Your task to perform on an android device: Go to location settings Image 0: 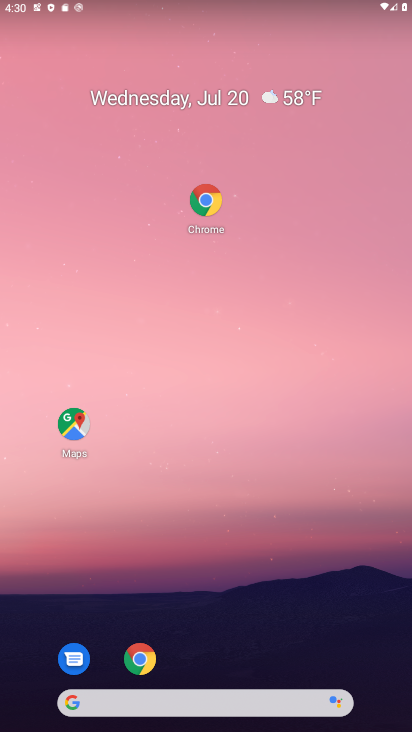
Step 0: drag from (199, 665) to (112, 210)
Your task to perform on an android device: Go to location settings Image 1: 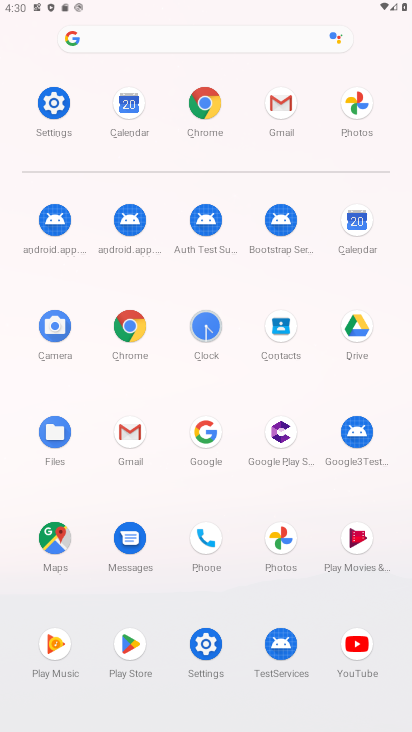
Step 1: click (60, 103)
Your task to perform on an android device: Go to location settings Image 2: 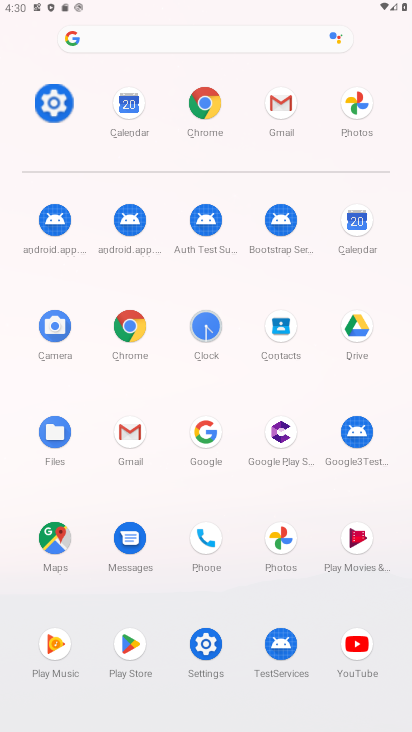
Step 2: click (60, 103)
Your task to perform on an android device: Go to location settings Image 3: 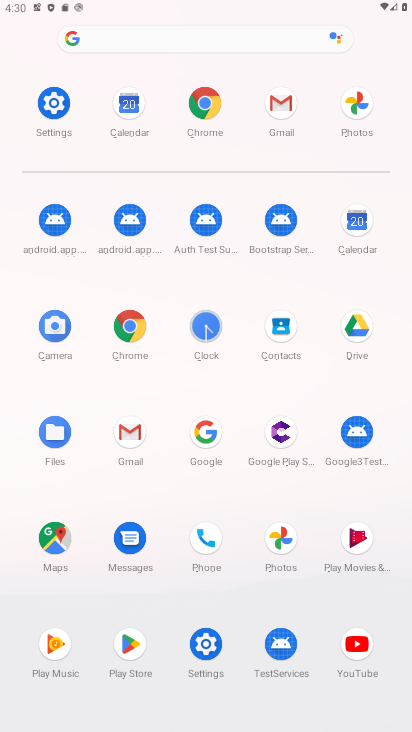
Step 3: click (55, 95)
Your task to perform on an android device: Go to location settings Image 4: 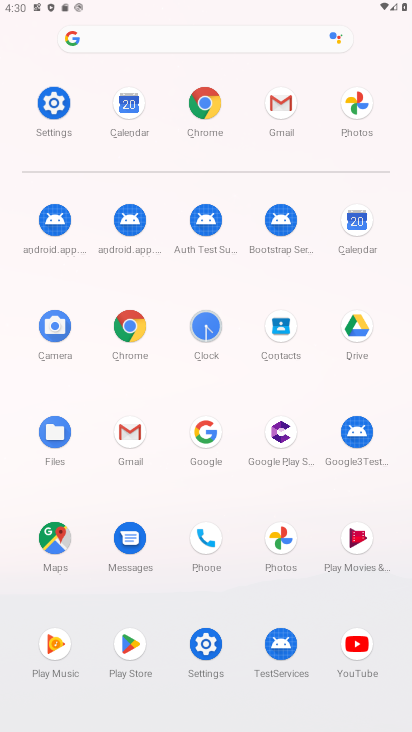
Step 4: click (57, 97)
Your task to perform on an android device: Go to location settings Image 5: 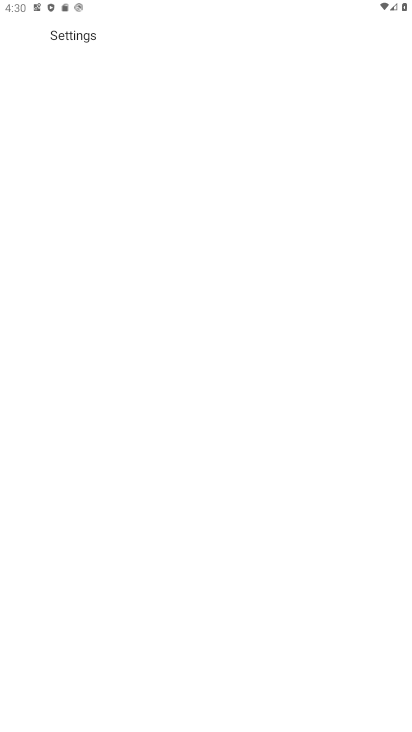
Step 5: click (57, 97)
Your task to perform on an android device: Go to location settings Image 6: 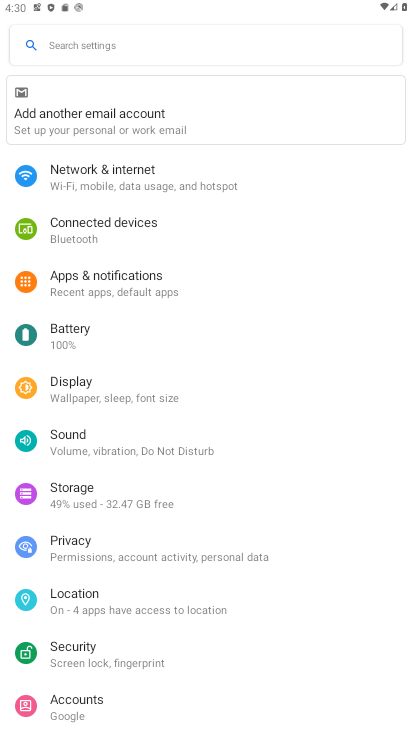
Step 6: click (85, 593)
Your task to perform on an android device: Go to location settings Image 7: 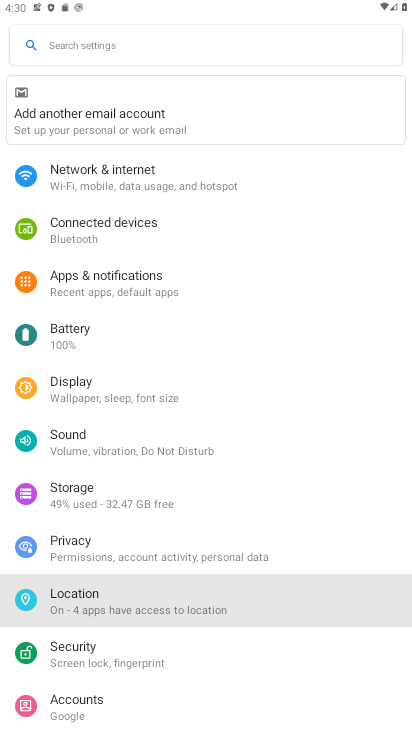
Step 7: click (90, 597)
Your task to perform on an android device: Go to location settings Image 8: 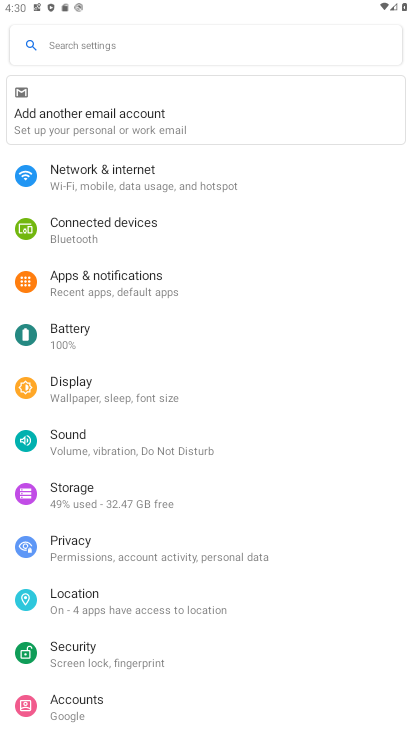
Step 8: click (91, 597)
Your task to perform on an android device: Go to location settings Image 9: 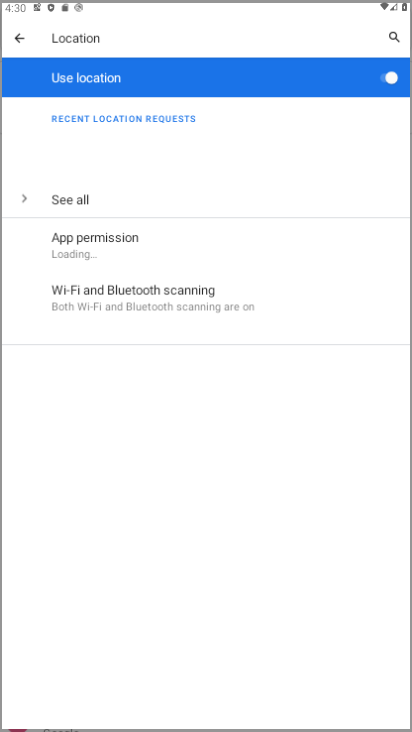
Step 9: click (94, 597)
Your task to perform on an android device: Go to location settings Image 10: 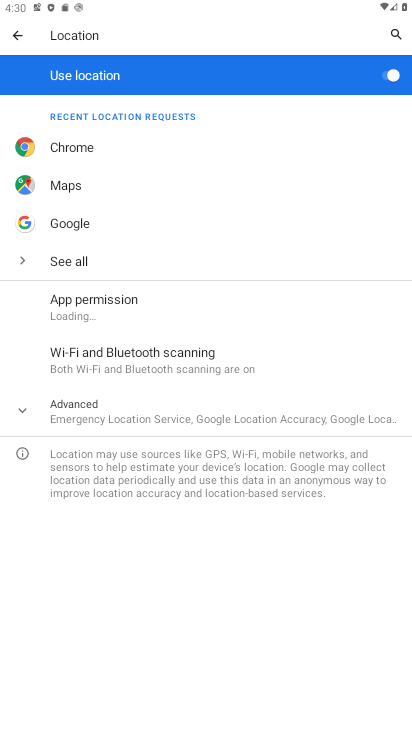
Step 10: click (101, 592)
Your task to perform on an android device: Go to location settings Image 11: 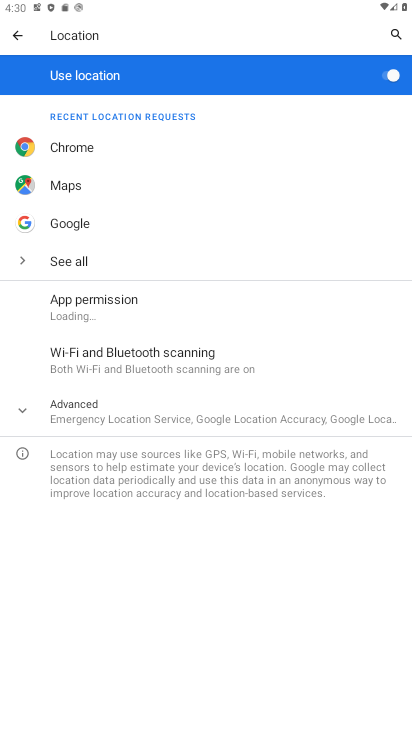
Step 11: click (103, 592)
Your task to perform on an android device: Go to location settings Image 12: 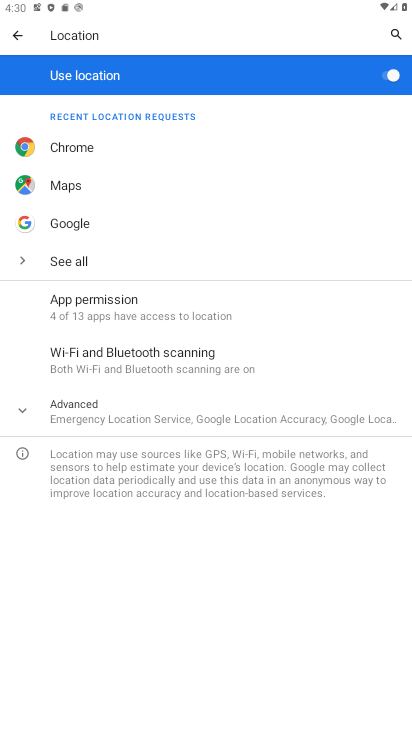
Step 12: task complete